Your task to perform on an android device: Show me productivity apps on the Play Store Image 0: 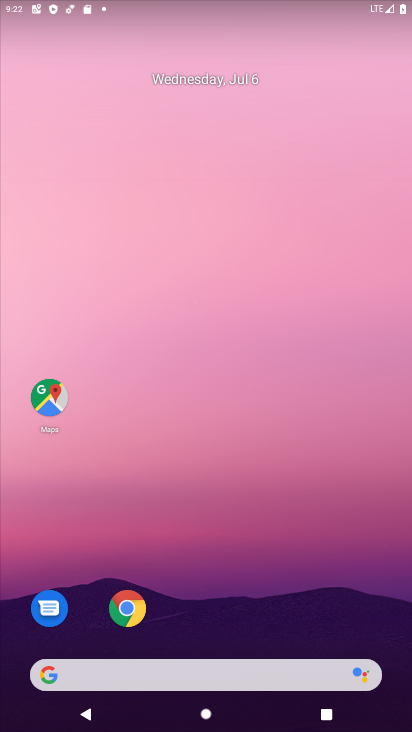
Step 0: drag from (213, 596) to (231, 176)
Your task to perform on an android device: Show me productivity apps on the Play Store Image 1: 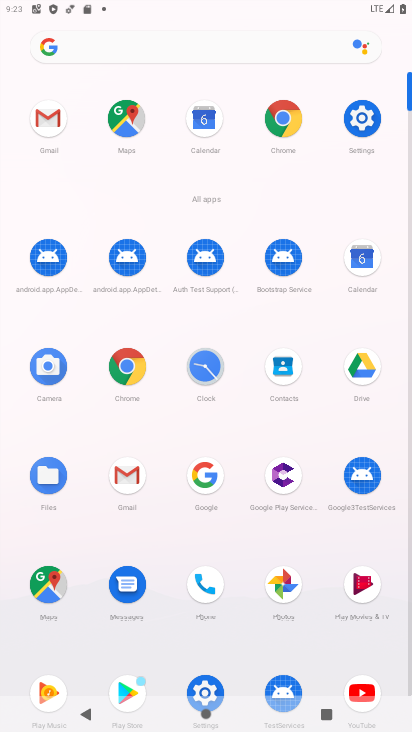
Step 1: drag from (161, 554) to (214, 251)
Your task to perform on an android device: Show me productivity apps on the Play Store Image 2: 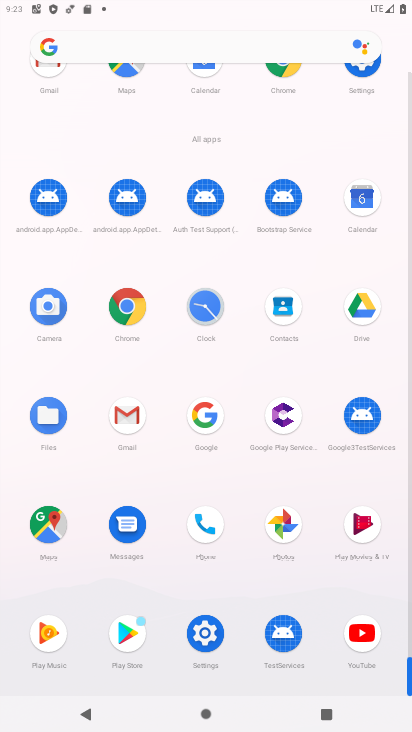
Step 2: click (128, 627)
Your task to perform on an android device: Show me productivity apps on the Play Store Image 3: 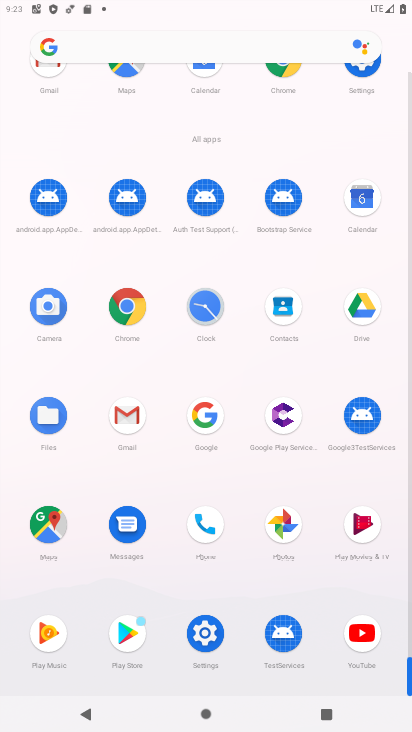
Step 3: click (128, 627)
Your task to perform on an android device: Show me productivity apps on the Play Store Image 4: 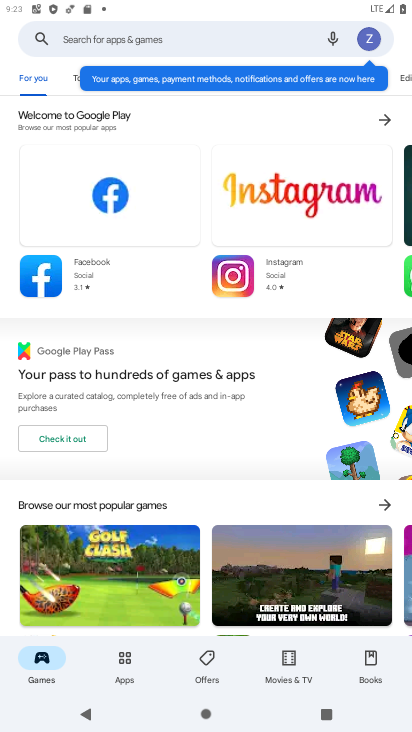
Step 4: click (118, 656)
Your task to perform on an android device: Show me productivity apps on the Play Store Image 5: 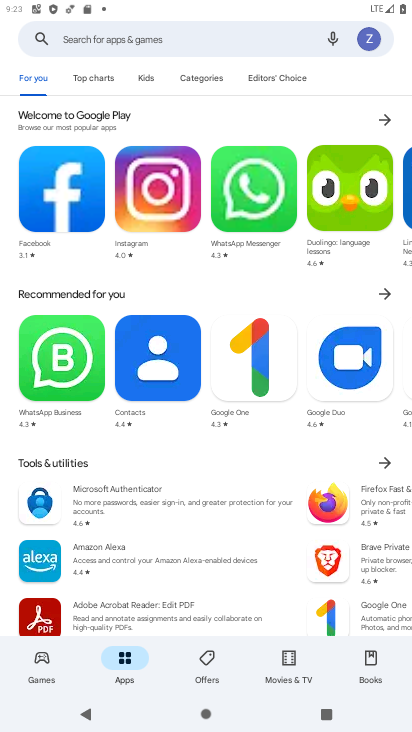
Step 5: task complete